Your task to perform on an android device: Open calendar and show me the second week of next month Image 0: 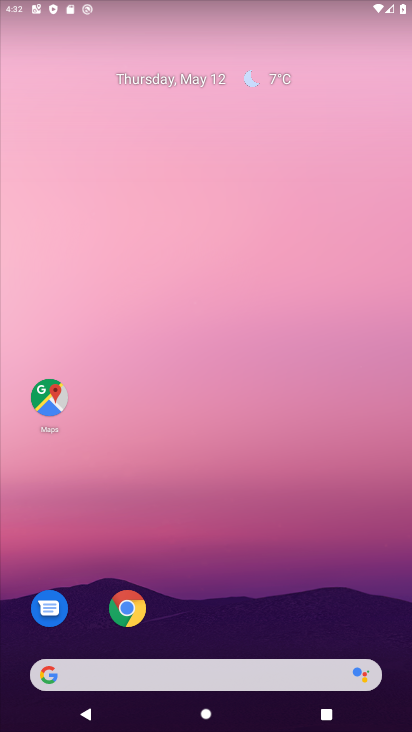
Step 0: click (183, 76)
Your task to perform on an android device: Open calendar and show me the second week of next month Image 1: 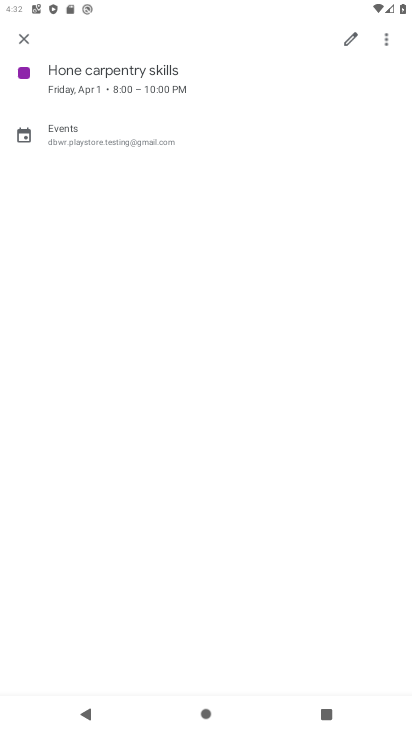
Step 1: click (29, 49)
Your task to perform on an android device: Open calendar and show me the second week of next month Image 2: 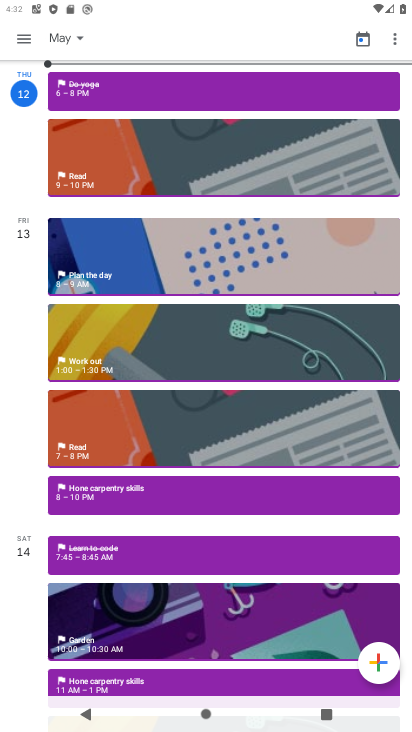
Step 2: click (63, 51)
Your task to perform on an android device: Open calendar and show me the second week of next month Image 3: 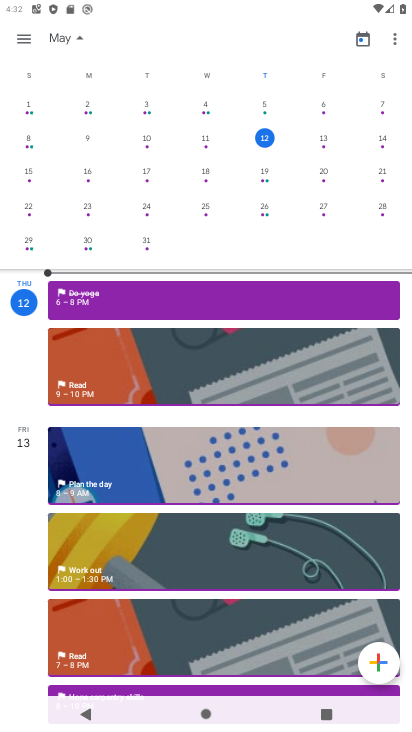
Step 3: drag from (368, 232) to (99, 160)
Your task to perform on an android device: Open calendar and show me the second week of next month Image 4: 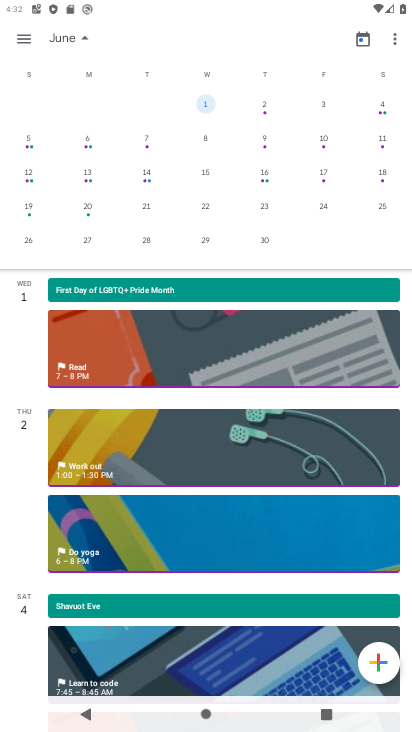
Step 4: click (203, 138)
Your task to perform on an android device: Open calendar and show me the second week of next month Image 5: 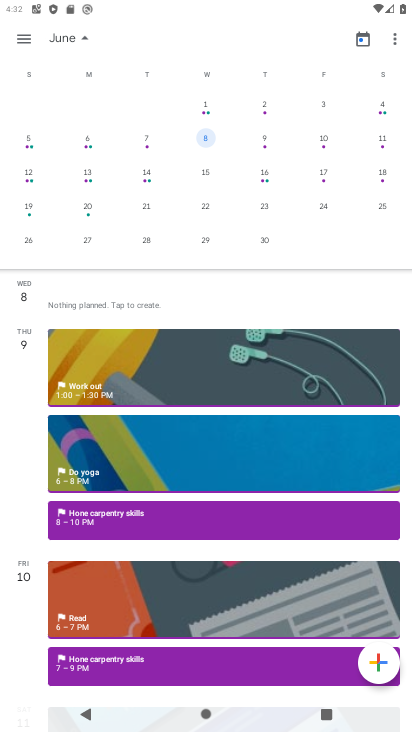
Step 5: task complete